Your task to perform on an android device: set the timer Image 0: 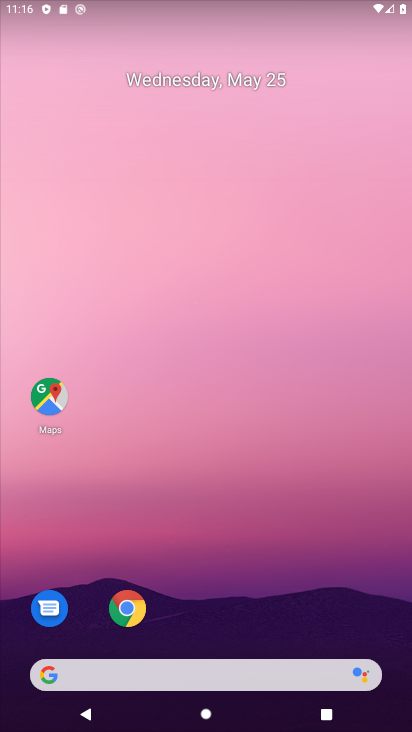
Step 0: drag from (223, 626) to (242, 27)
Your task to perform on an android device: set the timer Image 1: 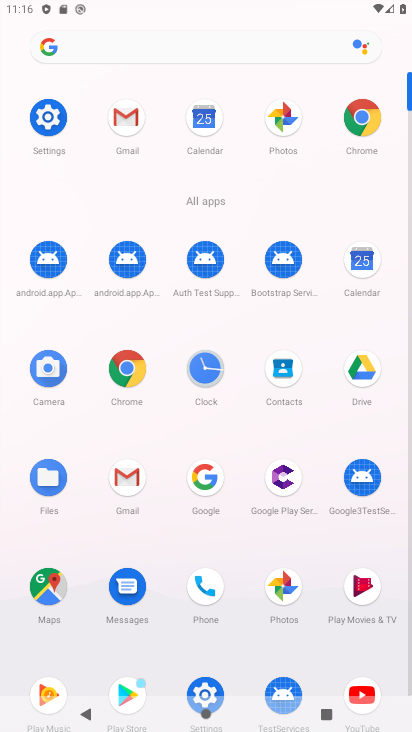
Step 1: click (212, 360)
Your task to perform on an android device: set the timer Image 2: 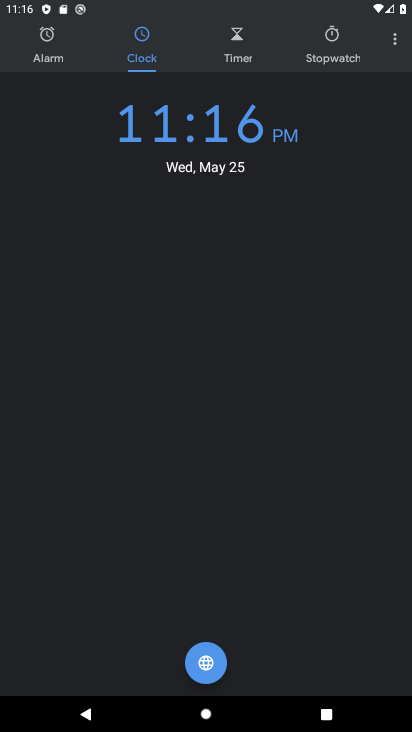
Step 2: click (244, 38)
Your task to perform on an android device: set the timer Image 3: 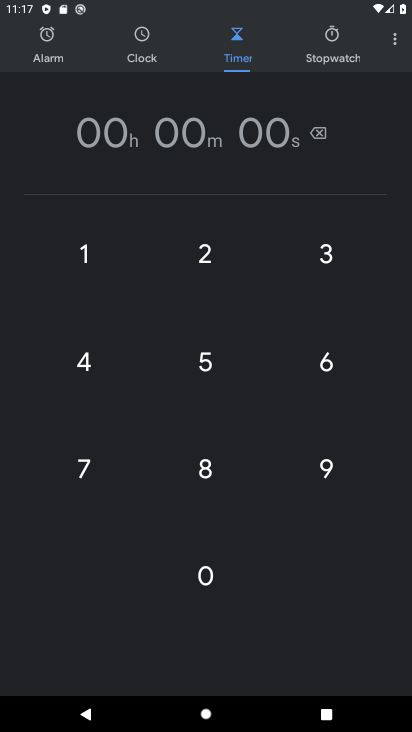
Step 3: click (331, 246)
Your task to perform on an android device: set the timer Image 4: 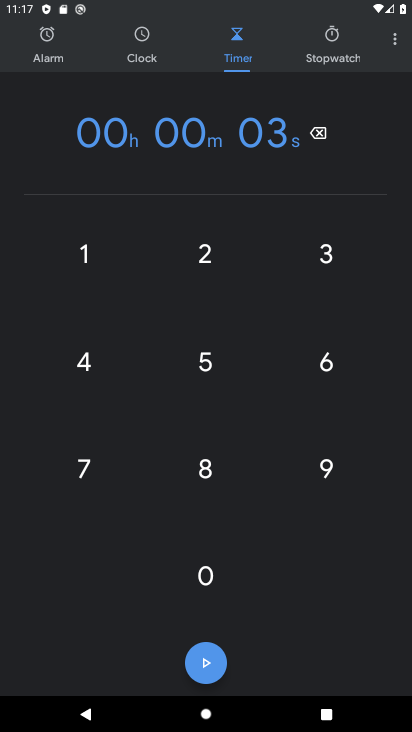
Step 4: click (200, 662)
Your task to perform on an android device: set the timer Image 5: 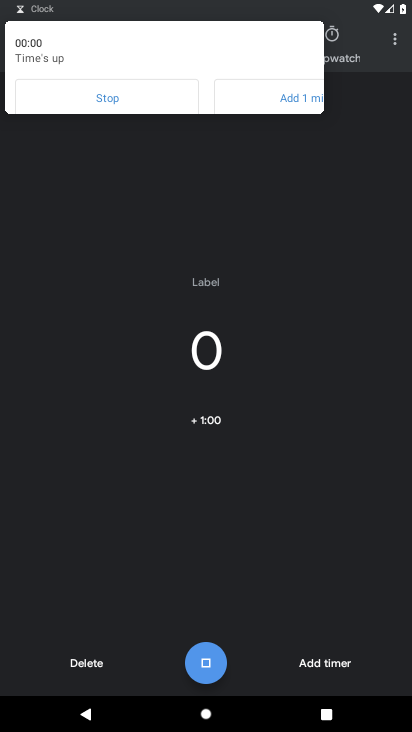
Step 5: task complete